Your task to perform on an android device: change notifications settings Image 0: 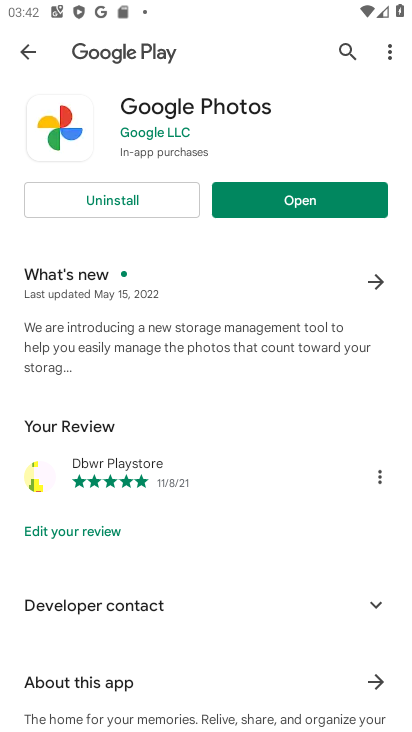
Step 0: press home button
Your task to perform on an android device: change notifications settings Image 1: 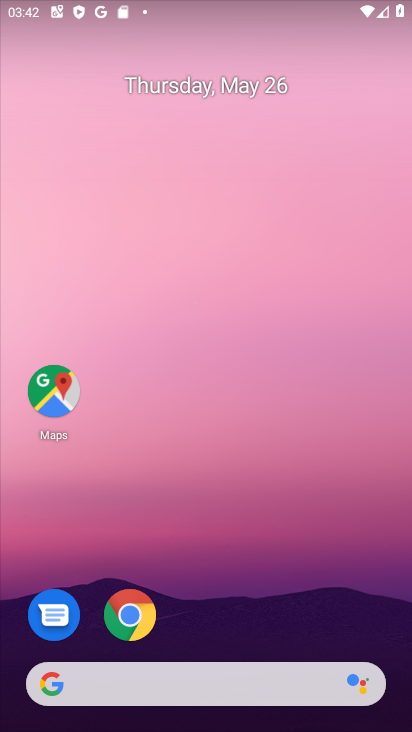
Step 1: drag from (205, 611) to (212, 27)
Your task to perform on an android device: change notifications settings Image 2: 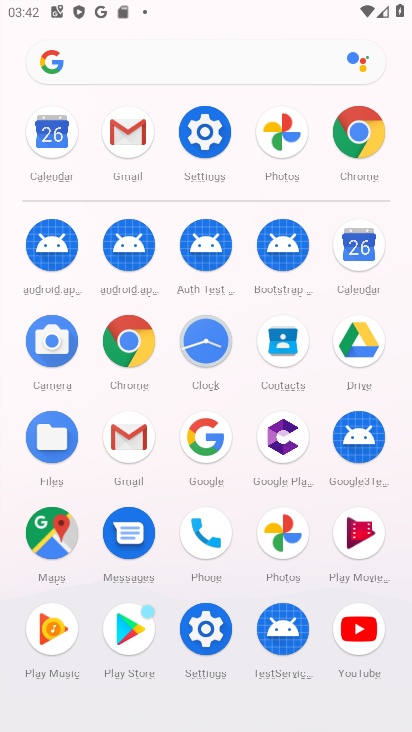
Step 2: click (203, 138)
Your task to perform on an android device: change notifications settings Image 3: 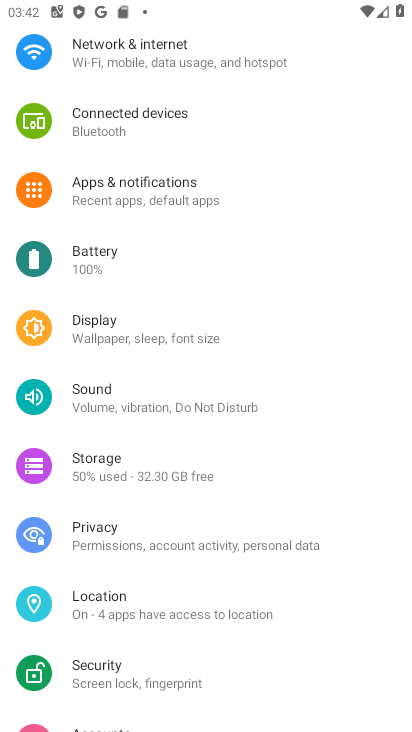
Step 3: click (142, 203)
Your task to perform on an android device: change notifications settings Image 4: 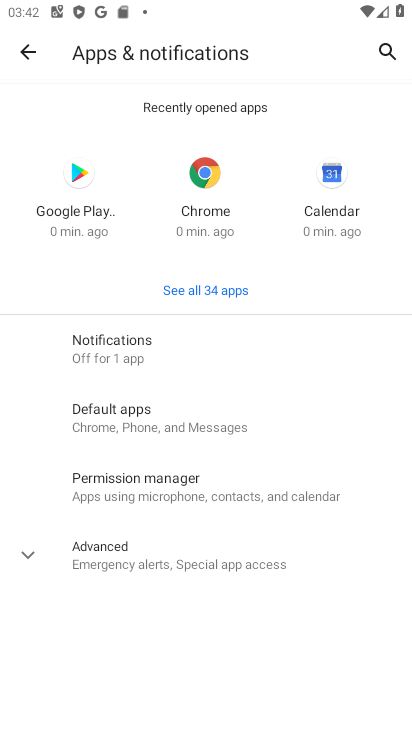
Step 4: click (126, 351)
Your task to perform on an android device: change notifications settings Image 5: 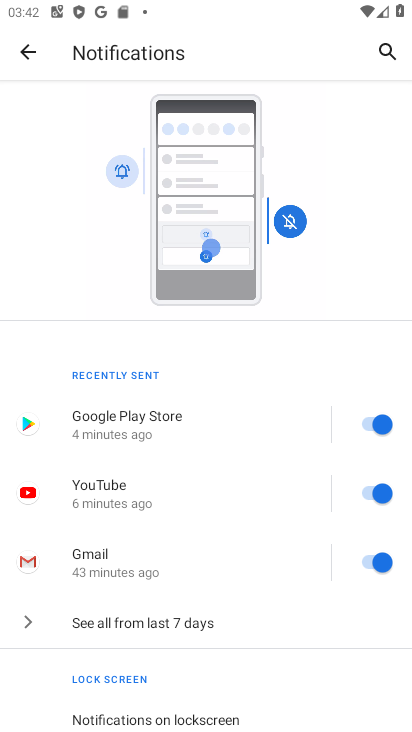
Step 5: drag from (210, 583) to (265, 335)
Your task to perform on an android device: change notifications settings Image 6: 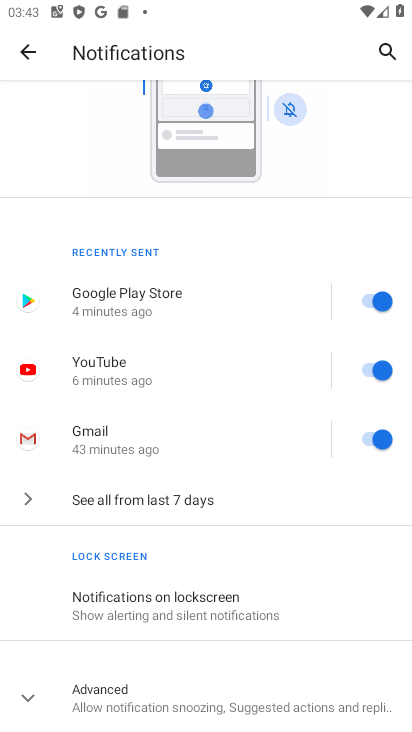
Step 6: click (158, 610)
Your task to perform on an android device: change notifications settings Image 7: 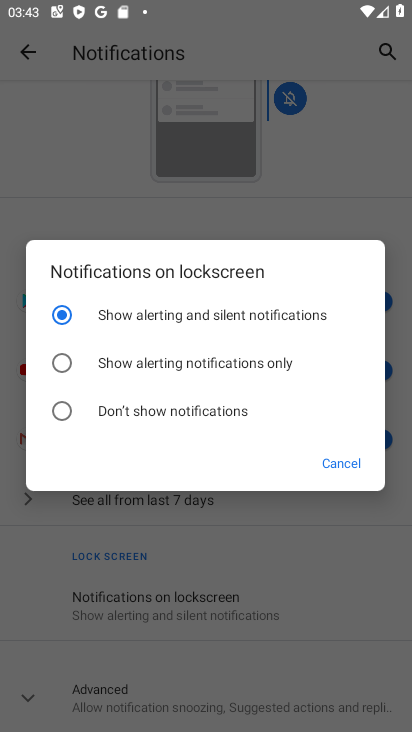
Step 7: click (69, 412)
Your task to perform on an android device: change notifications settings Image 8: 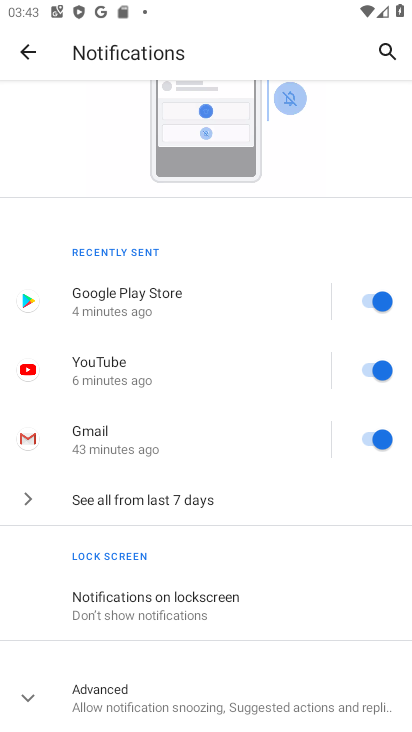
Step 8: task complete